Your task to perform on an android device: Go to ESPN.com Image 0: 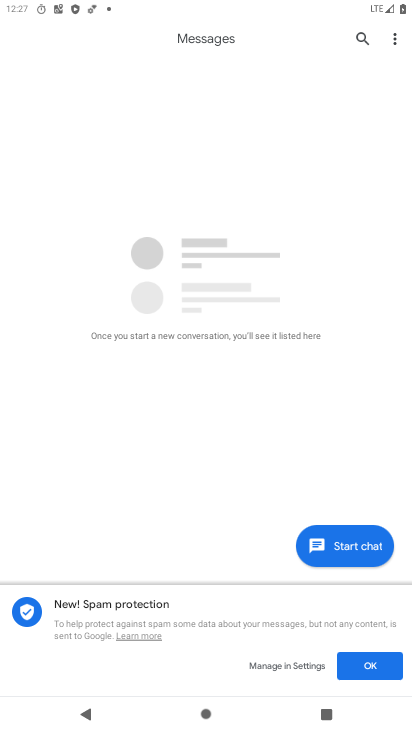
Step 0: drag from (329, 597) to (347, 212)
Your task to perform on an android device: Go to ESPN.com Image 1: 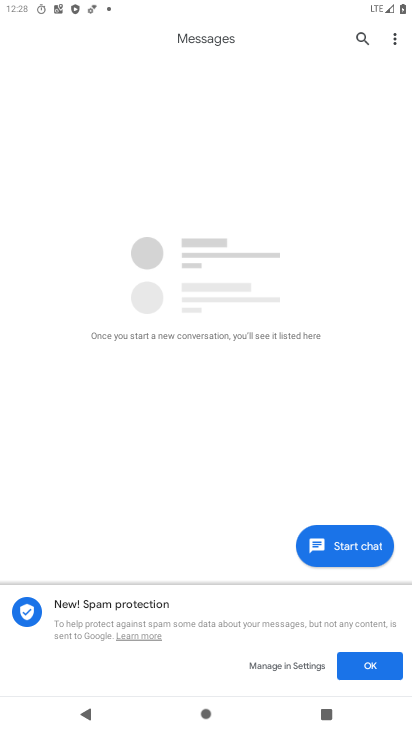
Step 1: press home button
Your task to perform on an android device: Go to ESPN.com Image 2: 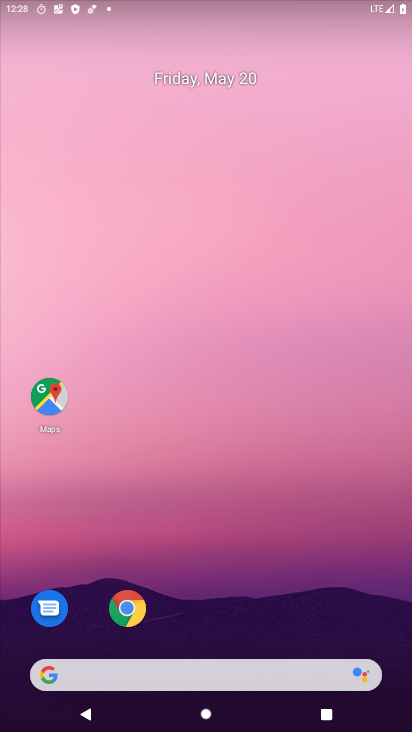
Step 2: drag from (334, 599) to (258, 78)
Your task to perform on an android device: Go to ESPN.com Image 3: 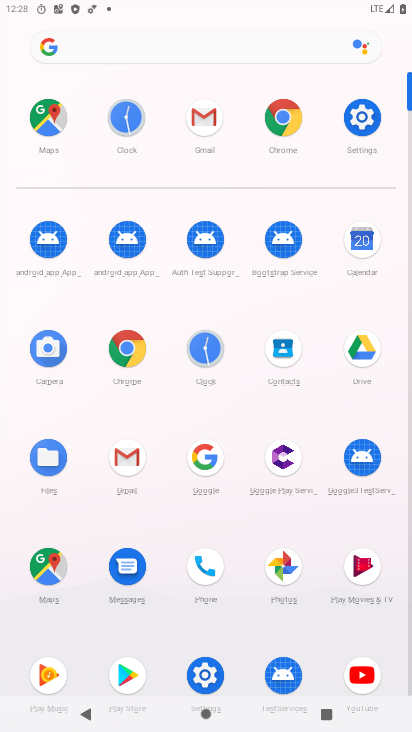
Step 3: click (122, 367)
Your task to perform on an android device: Go to ESPN.com Image 4: 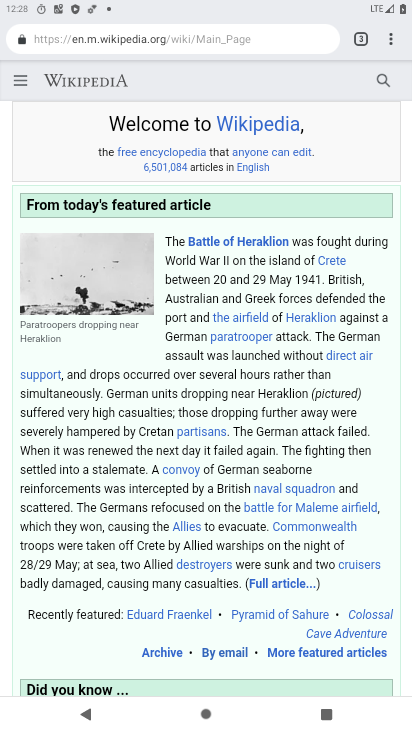
Step 4: click (189, 37)
Your task to perform on an android device: Go to ESPN.com Image 5: 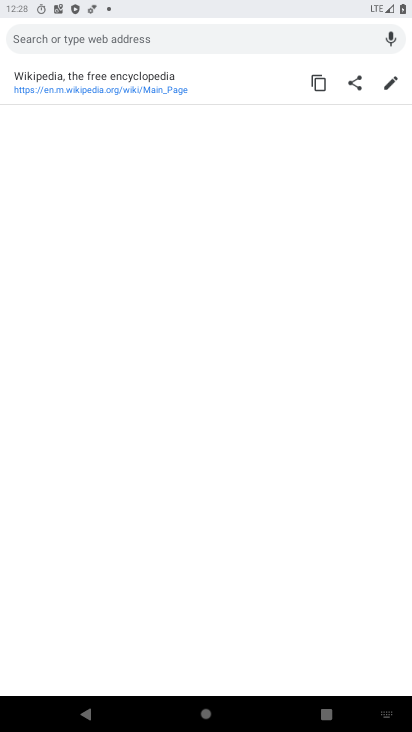
Step 5: type "espn.com"
Your task to perform on an android device: Go to ESPN.com Image 6: 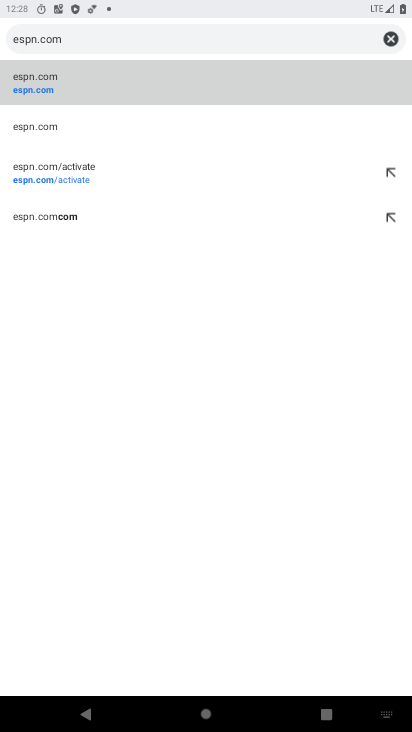
Step 6: click (60, 81)
Your task to perform on an android device: Go to ESPN.com Image 7: 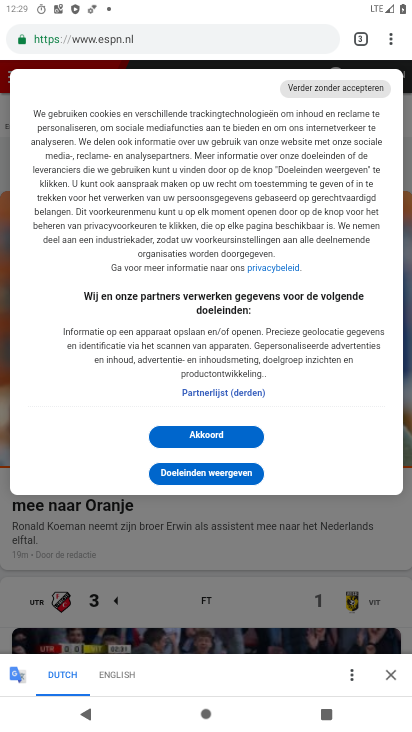
Step 7: task complete